Your task to perform on an android device: Open privacy settings Image 0: 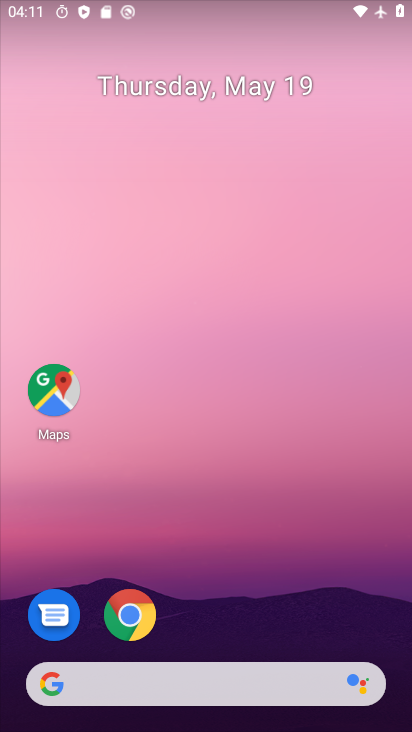
Step 0: drag from (291, 655) to (366, 3)
Your task to perform on an android device: Open privacy settings Image 1: 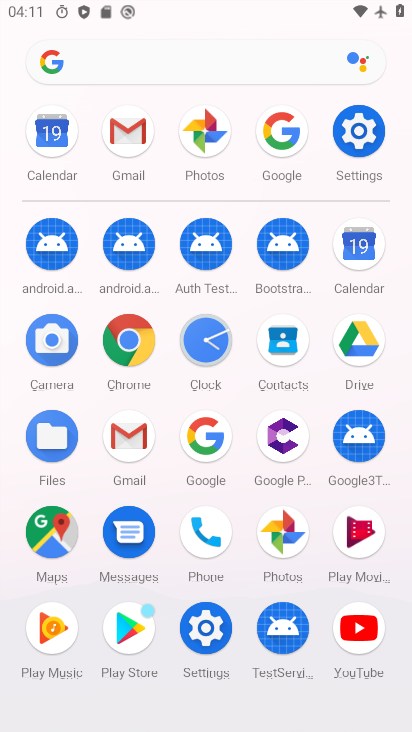
Step 1: click (357, 126)
Your task to perform on an android device: Open privacy settings Image 2: 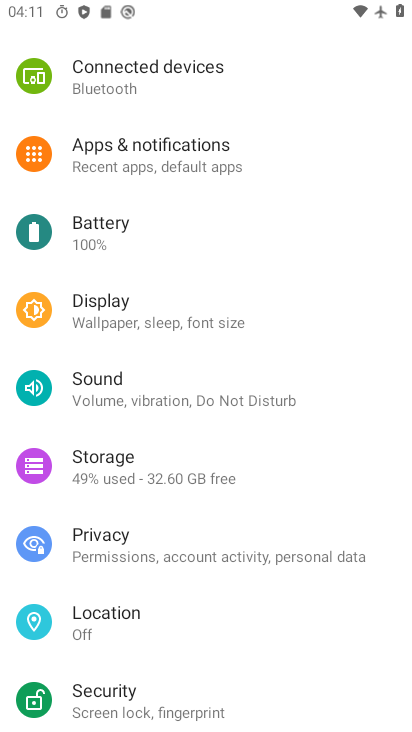
Step 2: click (79, 558)
Your task to perform on an android device: Open privacy settings Image 3: 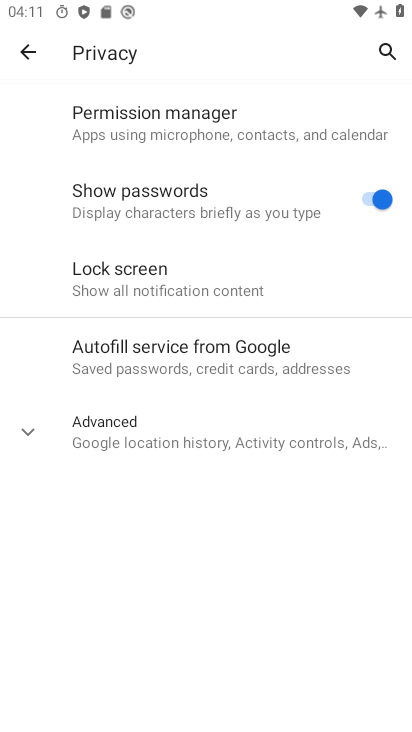
Step 3: task complete